Your task to perform on an android device: turn off improve location accuracy Image 0: 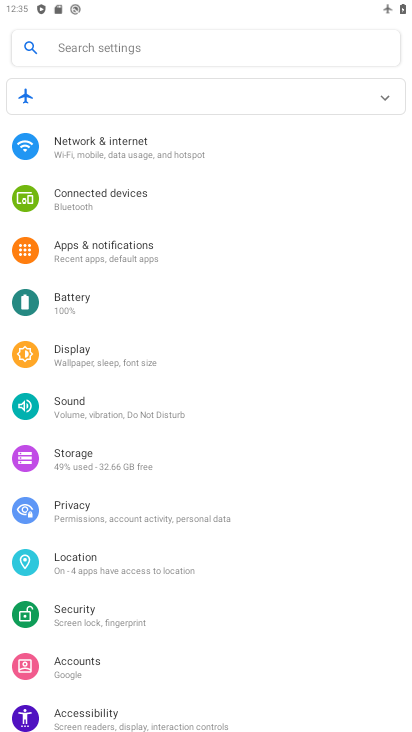
Step 0: click (75, 556)
Your task to perform on an android device: turn off improve location accuracy Image 1: 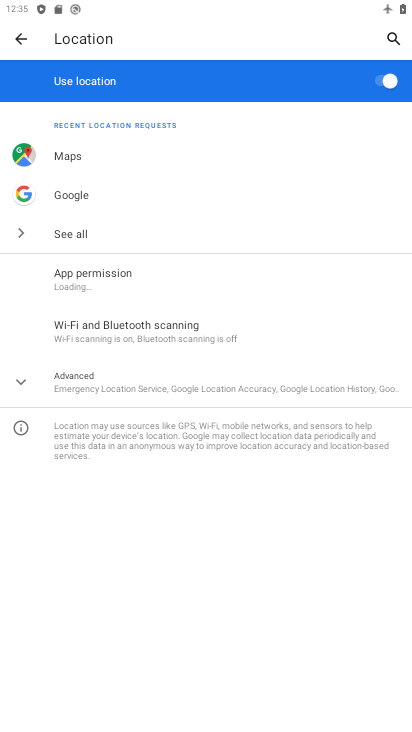
Step 1: click (93, 388)
Your task to perform on an android device: turn off improve location accuracy Image 2: 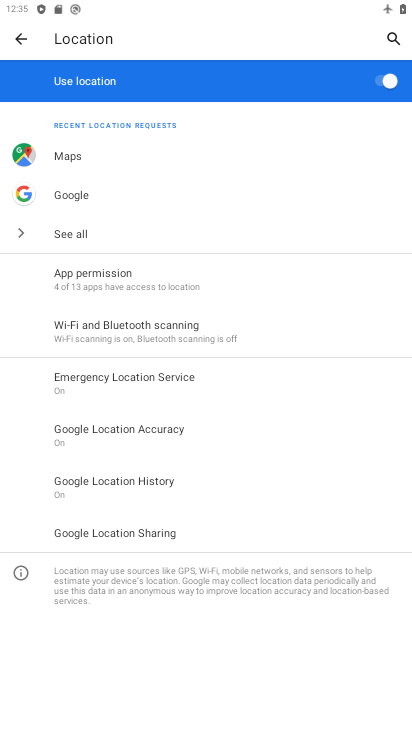
Step 2: click (108, 438)
Your task to perform on an android device: turn off improve location accuracy Image 3: 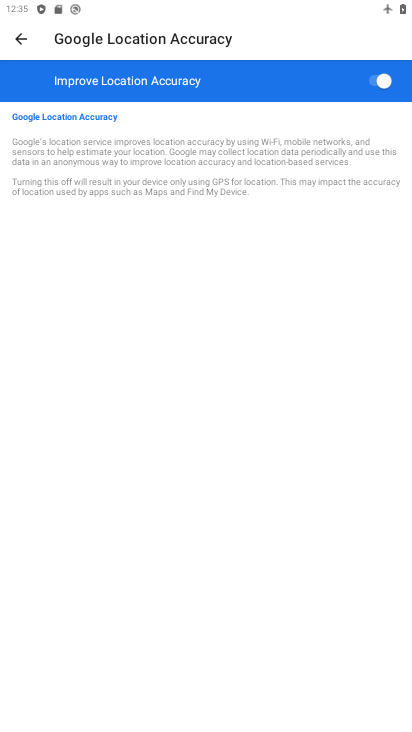
Step 3: click (374, 80)
Your task to perform on an android device: turn off improve location accuracy Image 4: 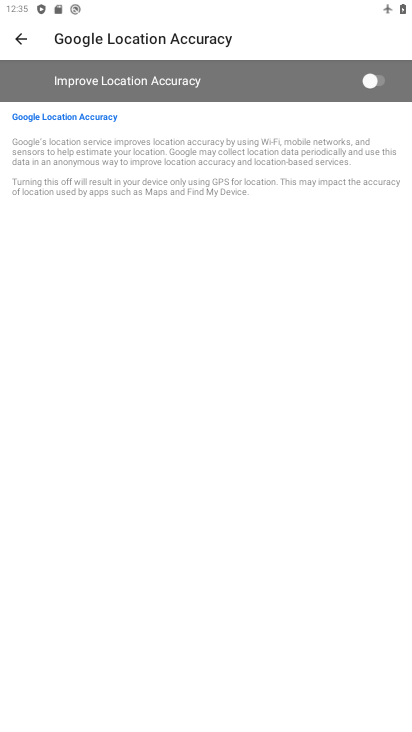
Step 4: task complete